Your task to perform on an android device: Turn on the flashlight Image 0: 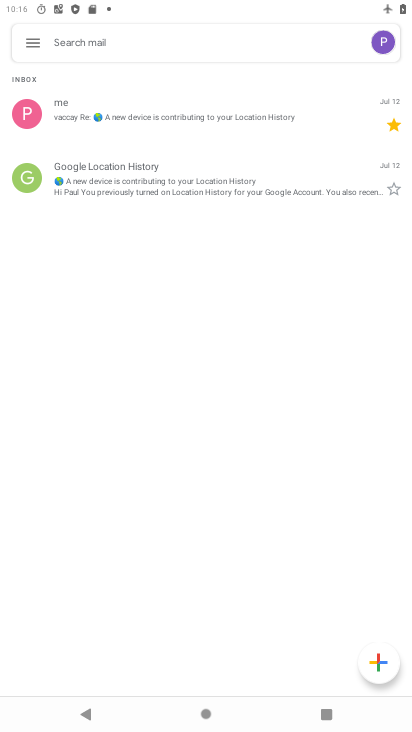
Step 0: drag from (307, 35) to (163, 690)
Your task to perform on an android device: Turn on the flashlight Image 1: 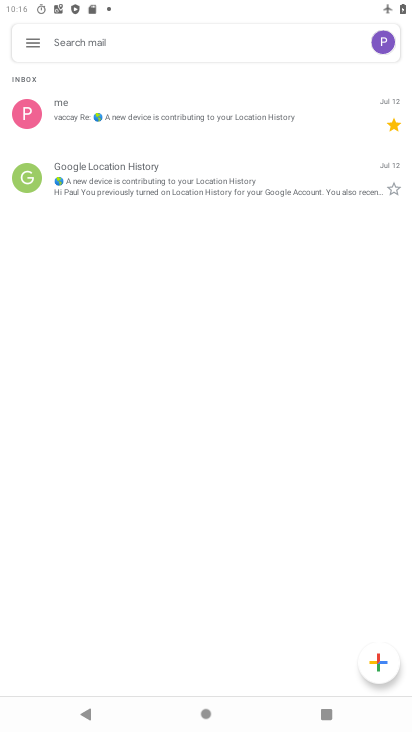
Step 1: task complete